Your task to perform on an android device: Open settings on Google Maps Image 0: 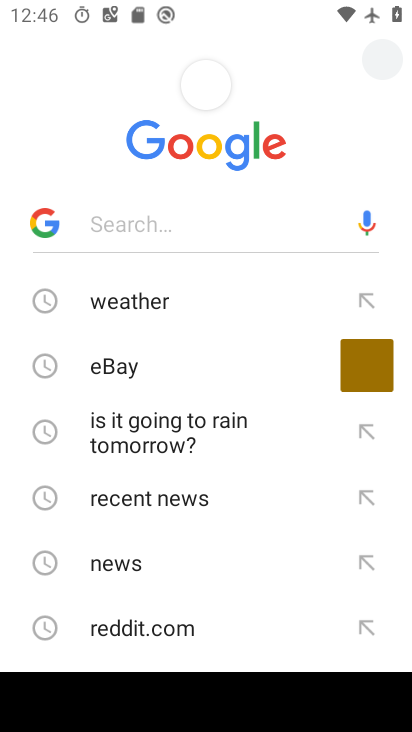
Step 0: press home button
Your task to perform on an android device: Open settings on Google Maps Image 1: 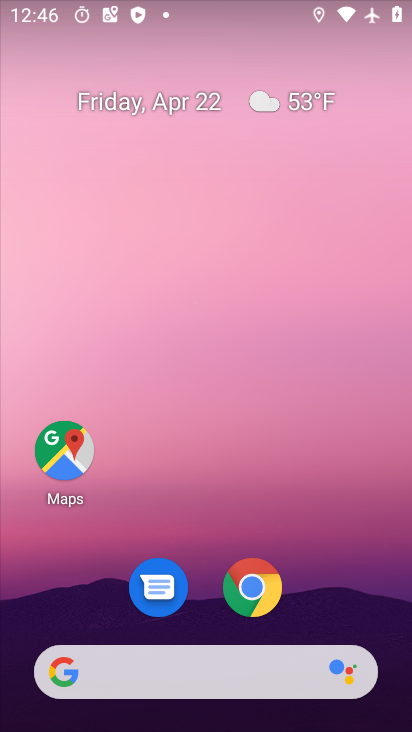
Step 1: drag from (202, 549) to (268, 154)
Your task to perform on an android device: Open settings on Google Maps Image 2: 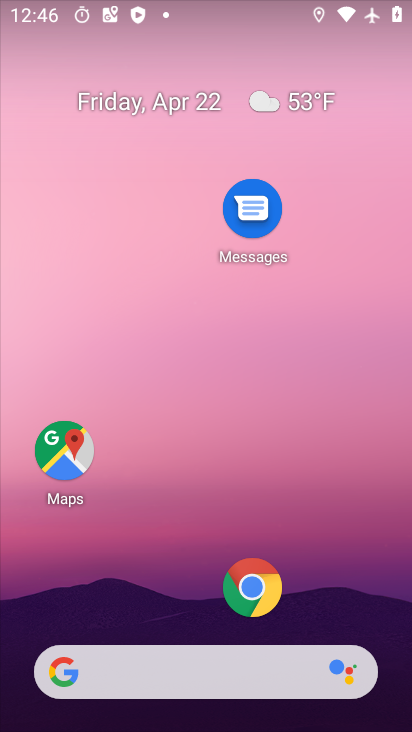
Step 2: drag from (160, 671) to (232, 129)
Your task to perform on an android device: Open settings on Google Maps Image 3: 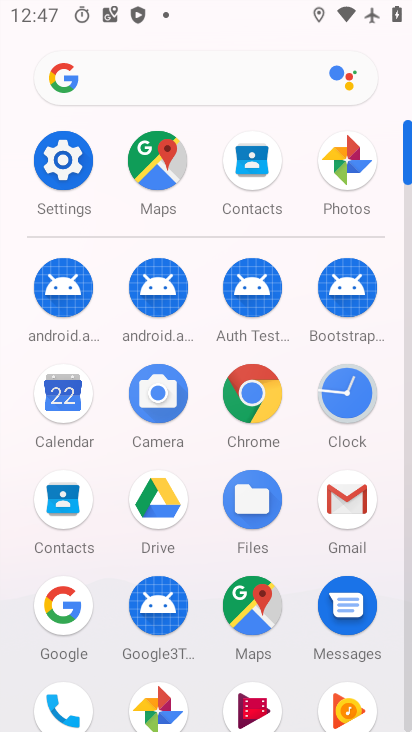
Step 3: click (160, 170)
Your task to perform on an android device: Open settings on Google Maps Image 4: 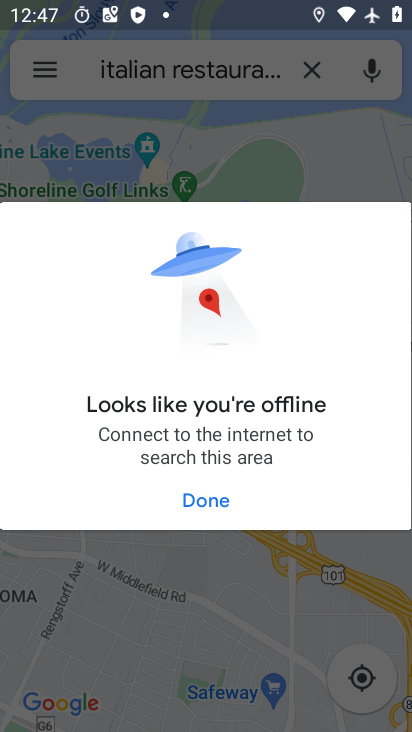
Step 4: click (210, 500)
Your task to perform on an android device: Open settings on Google Maps Image 5: 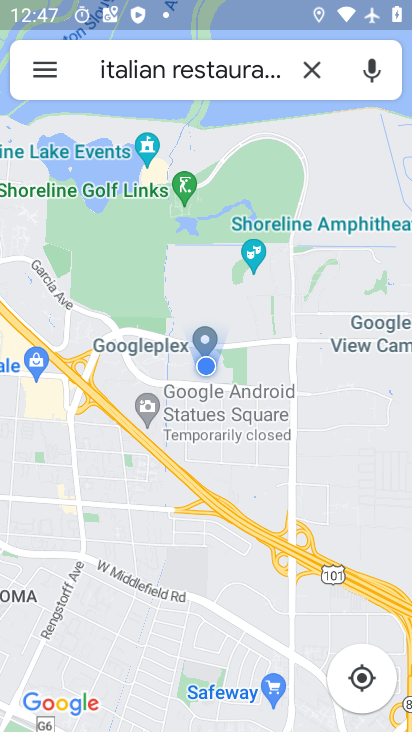
Step 5: click (52, 61)
Your task to perform on an android device: Open settings on Google Maps Image 6: 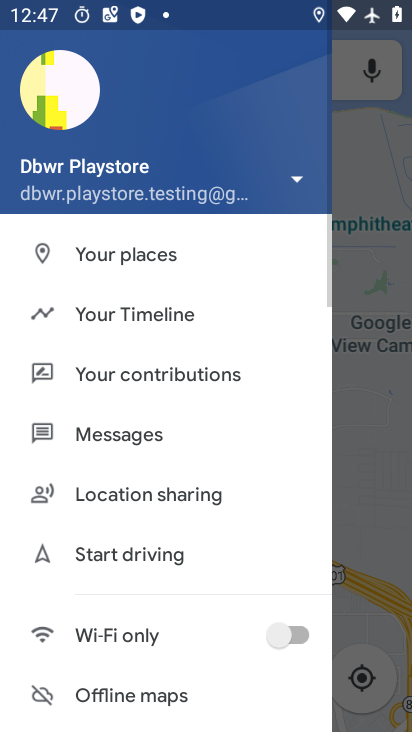
Step 6: drag from (160, 542) to (228, 109)
Your task to perform on an android device: Open settings on Google Maps Image 7: 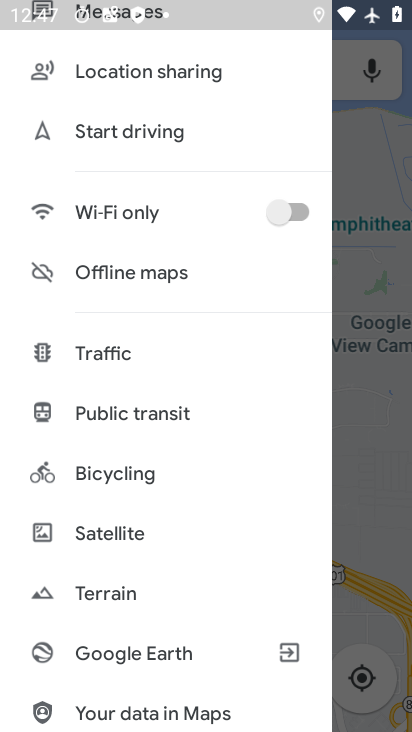
Step 7: drag from (92, 649) to (159, 68)
Your task to perform on an android device: Open settings on Google Maps Image 8: 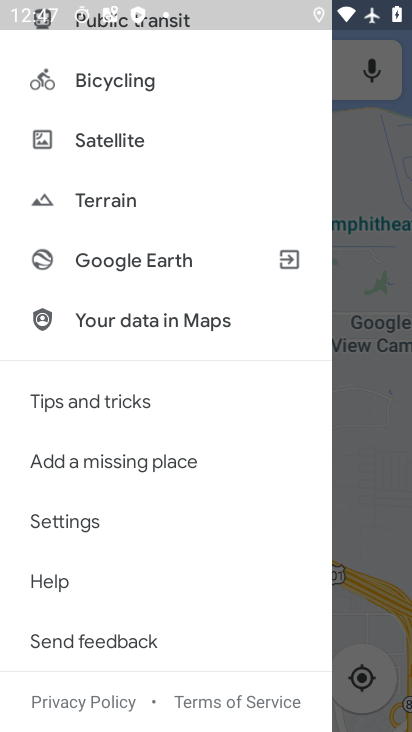
Step 8: click (36, 522)
Your task to perform on an android device: Open settings on Google Maps Image 9: 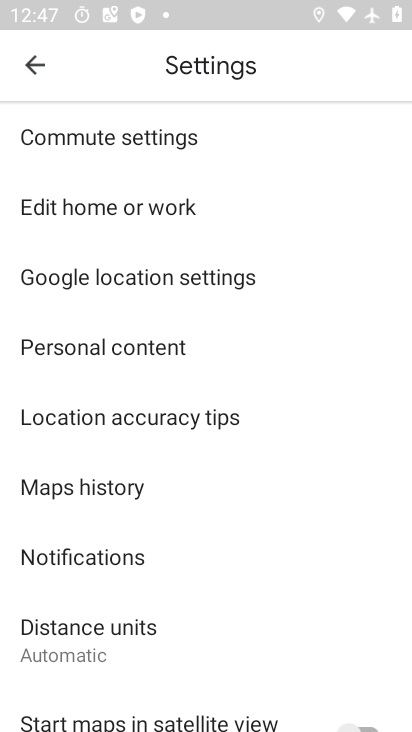
Step 9: task complete